Your task to perform on an android device: turn pop-ups off in chrome Image 0: 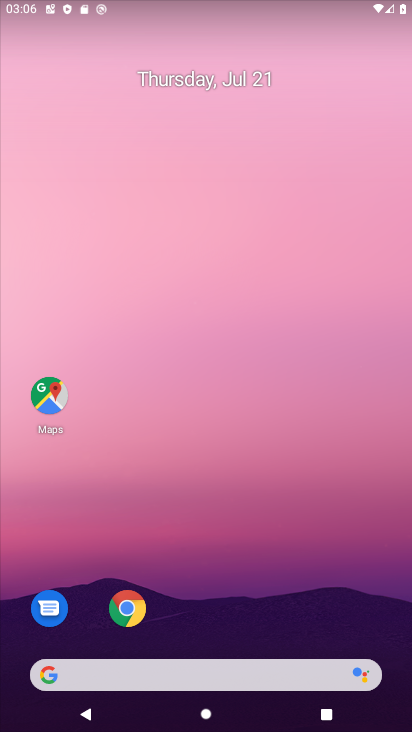
Step 0: drag from (268, 640) to (261, 0)
Your task to perform on an android device: turn pop-ups off in chrome Image 1: 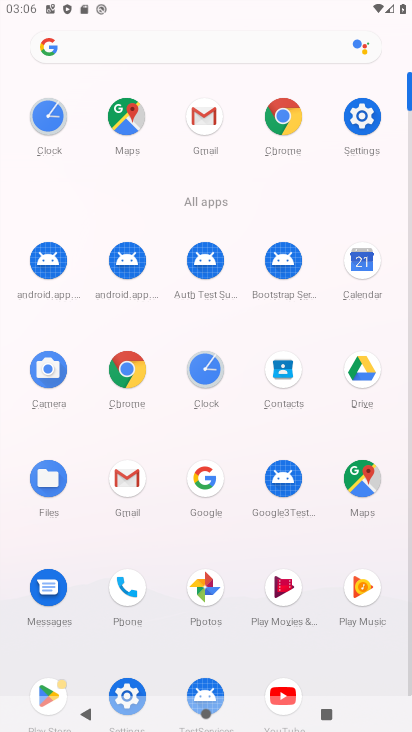
Step 1: click (125, 360)
Your task to perform on an android device: turn pop-ups off in chrome Image 2: 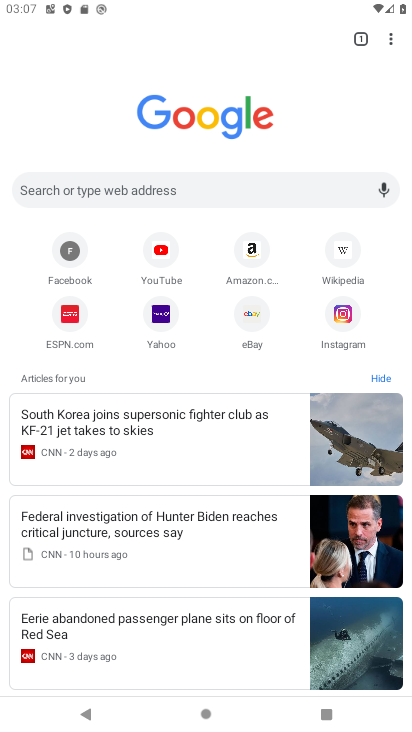
Step 2: drag from (397, 36) to (247, 336)
Your task to perform on an android device: turn pop-ups off in chrome Image 3: 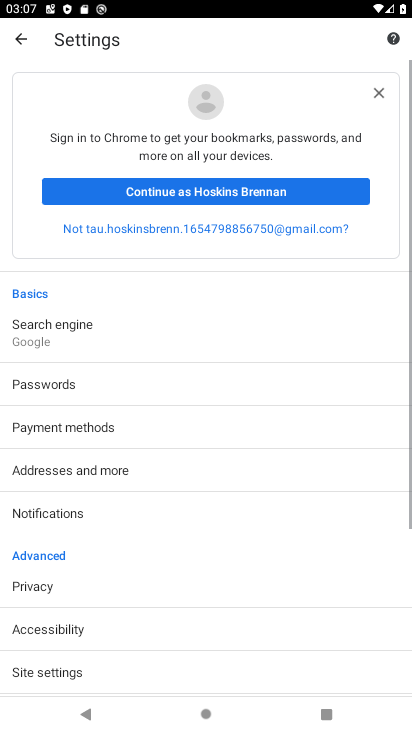
Step 3: drag from (31, 644) to (90, 350)
Your task to perform on an android device: turn pop-ups off in chrome Image 4: 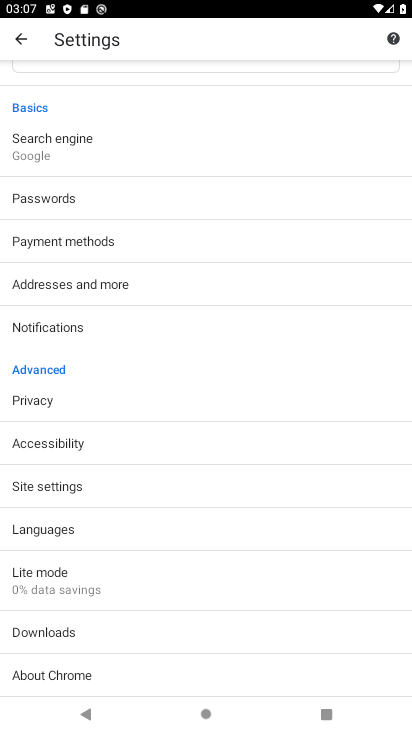
Step 4: click (73, 491)
Your task to perform on an android device: turn pop-ups off in chrome Image 5: 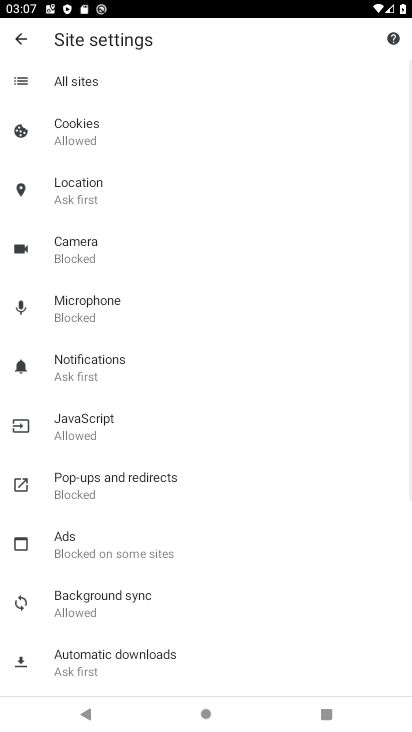
Step 5: click (104, 479)
Your task to perform on an android device: turn pop-ups off in chrome Image 6: 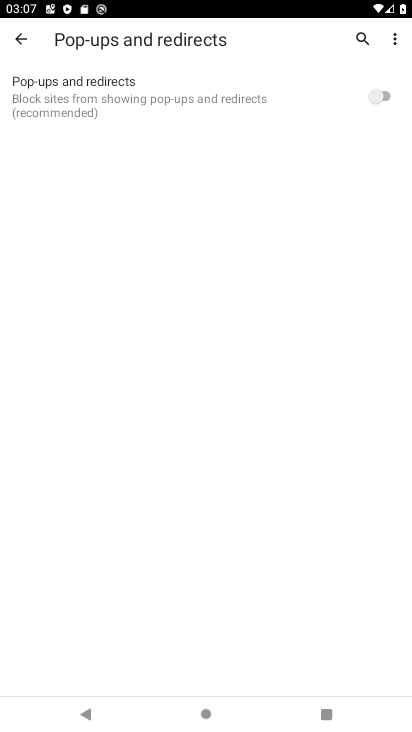
Step 6: task complete